Your task to perform on an android device: set default search engine in the chrome app Image 0: 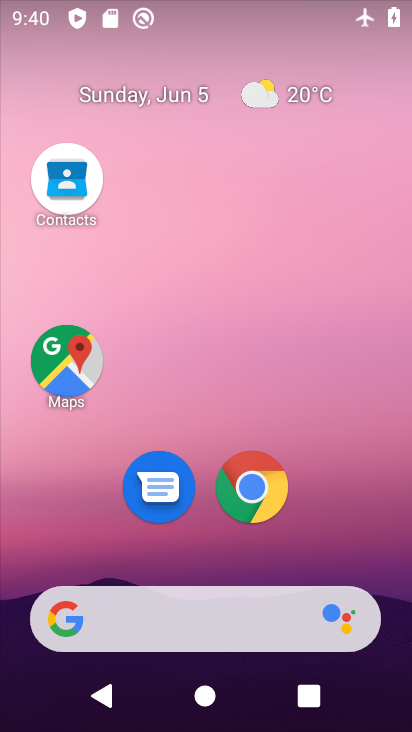
Step 0: drag from (218, 611) to (246, 175)
Your task to perform on an android device: set default search engine in the chrome app Image 1: 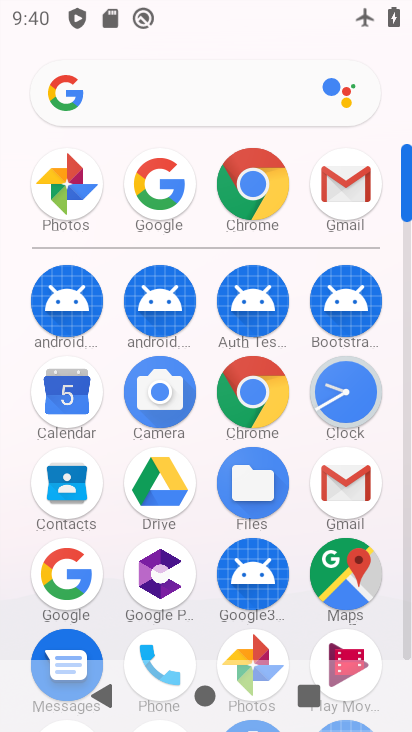
Step 1: click (256, 407)
Your task to perform on an android device: set default search engine in the chrome app Image 2: 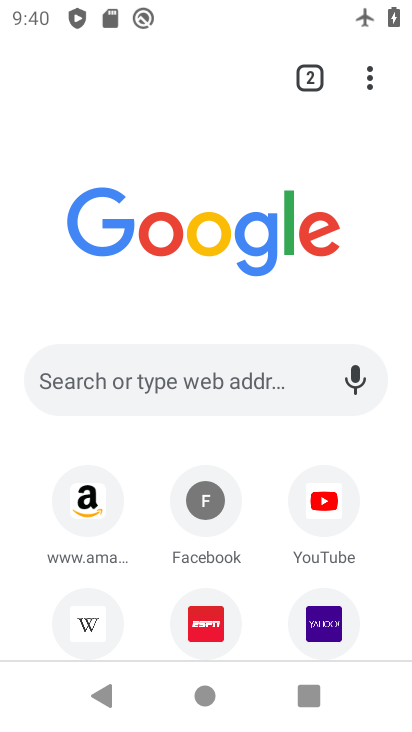
Step 2: click (371, 94)
Your task to perform on an android device: set default search engine in the chrome app Image 3: 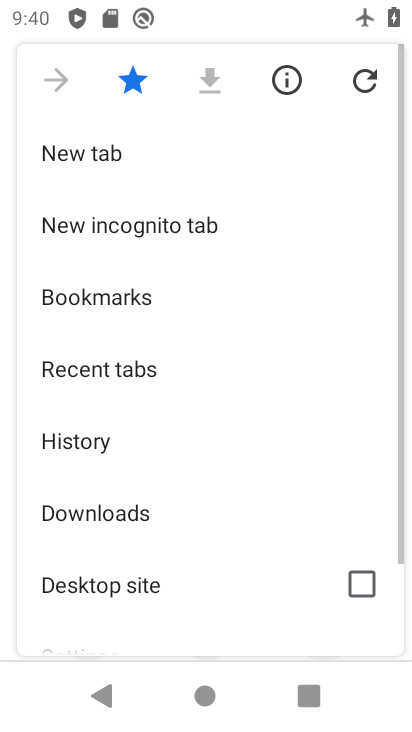
Step 3: click (369, 95)
Your task to perform on an android device: set default search engine in the chrome app Image 4: 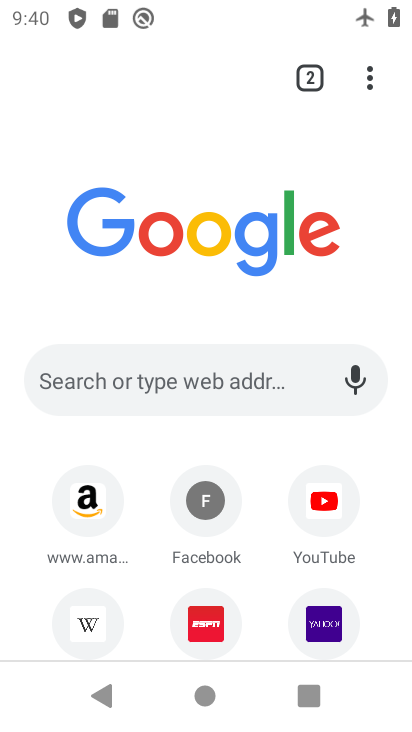
Step 4: click (370, 96)
Your task to perform on an android device: set default search engine in the chrome app Image 5: 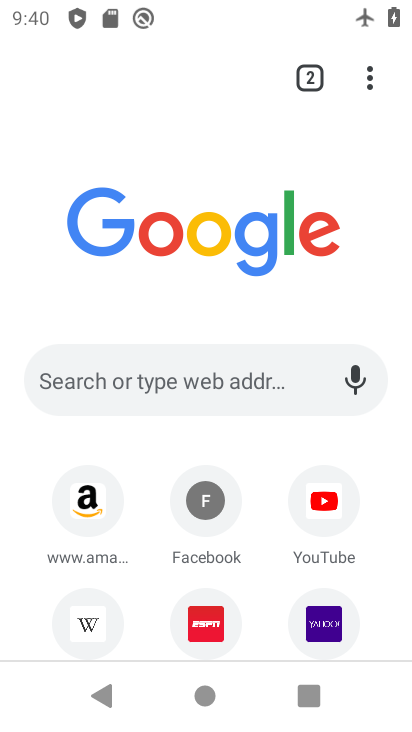
Step 5: click (383, 84)
Your task to perform on an android device: set default search engine in the chrome app Image 6: 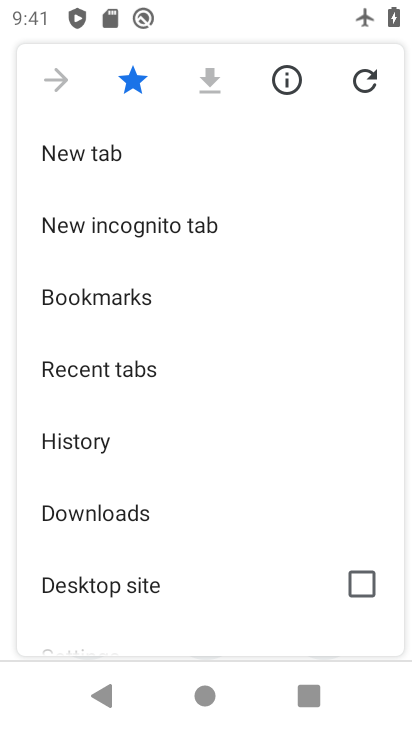
Step 6: drag from (164, 523) to (246, 236)
Your task to perform on an android device: set default search engine in the chrome app Image 7: 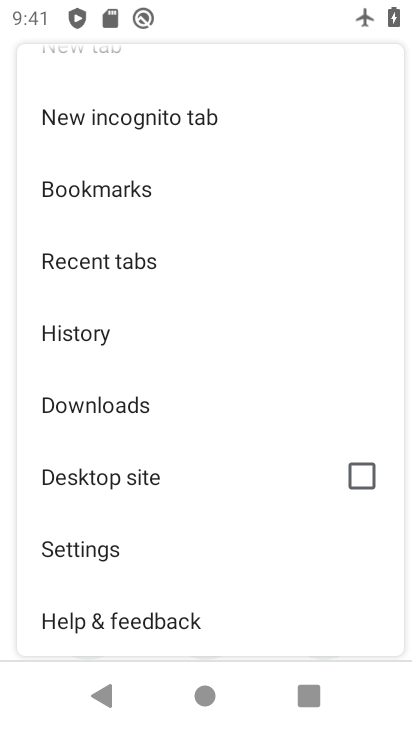
Step 7: click (107, 550)
Your task to perform on an android device: set default search engine in the chrome app Image 8: 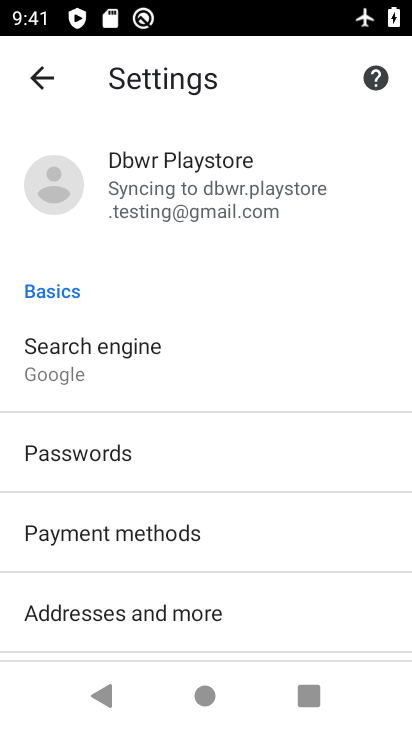
Step 8: drag from (201, 537) to (258, 179)
Your task to perform on an android device: set default search engine in the chrome app Image 9: 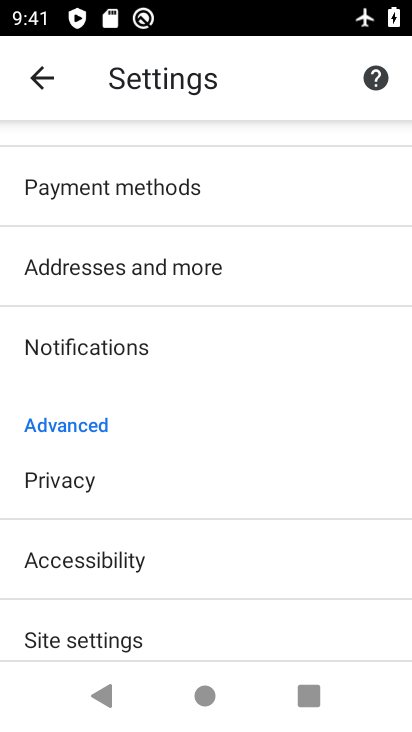
Step 9: drag from (162, 589) to (236, 253)
Your task to perform on an android device: set default search engine in the chrome app Image 10: 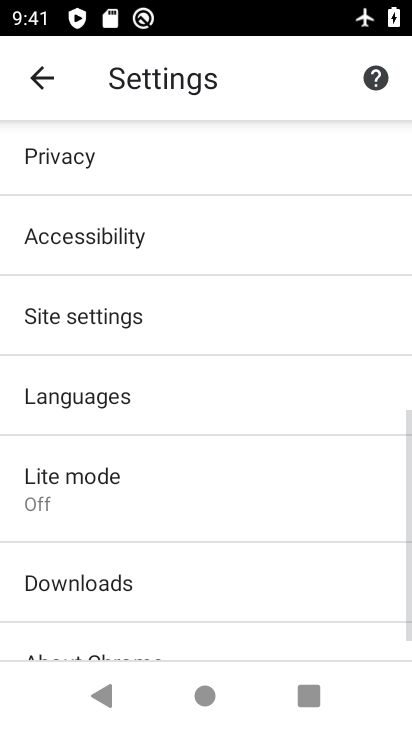
Step 10: drag from (240, 303) to (216, 722)
Your task to perform on an android device: set default search engine in the chrome app Image 11: 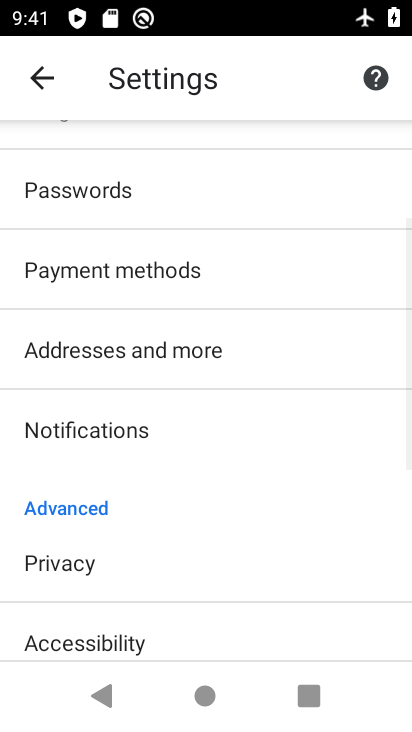
Step 11: drag from (211, 346) to (136, 729)
Your task to perform on an android device: set default search engine in the chrome app Image 12: 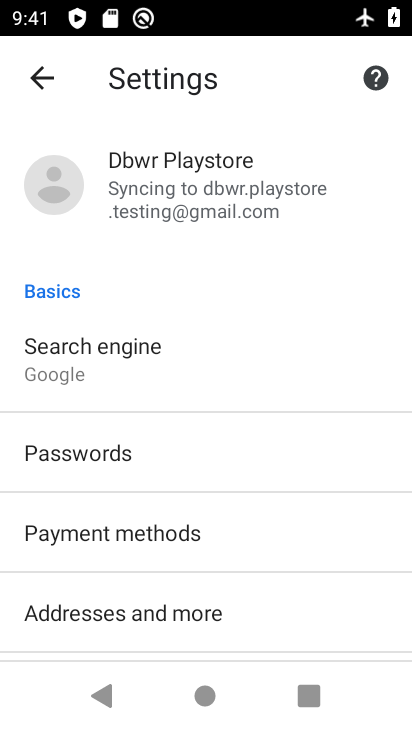
Step 12: drag from (164, 389) to (134, 730)
Your task to perform on an android device: set default search engine in the chrome app Image 13: 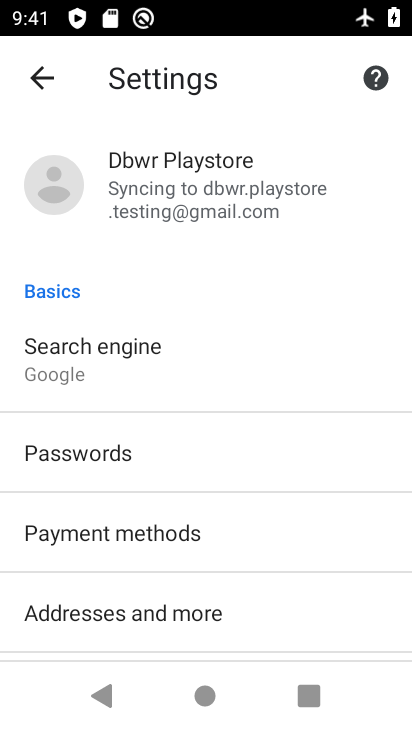
Step 13: click (114, 347)
Your task to perform on an android device: set default search engine in the chrome app Image 14: 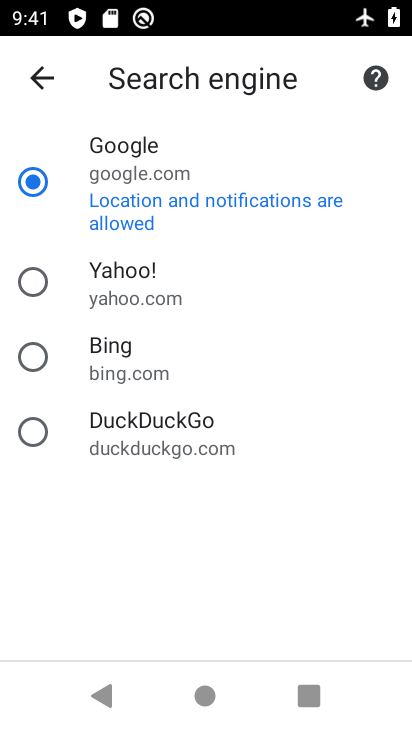
Step 14: task complete